Your task to perform on an android device: Open notification settings Image 0: 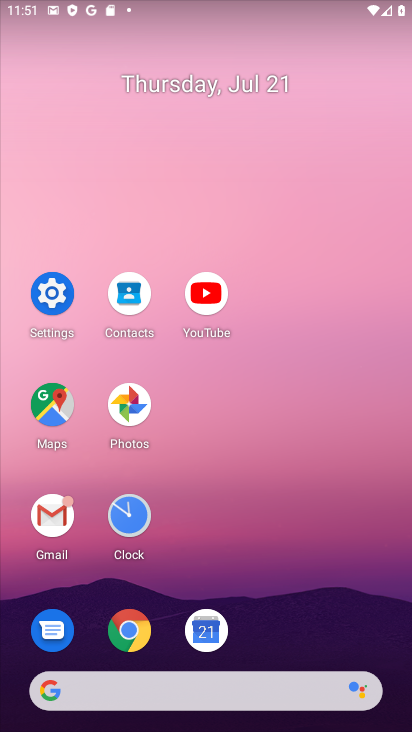
Step 0: click (48, 299)
Your task to perform on an android device: Open notification settings Image 1: 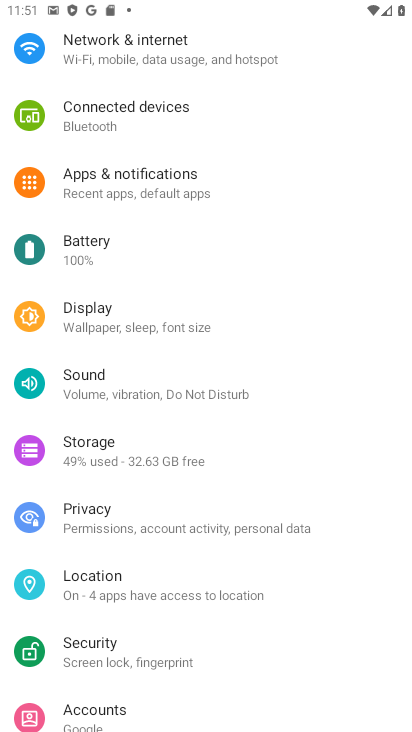
Step 1: click (116, 175)
Your task to perform on an android device: Open notification settings Image 2: 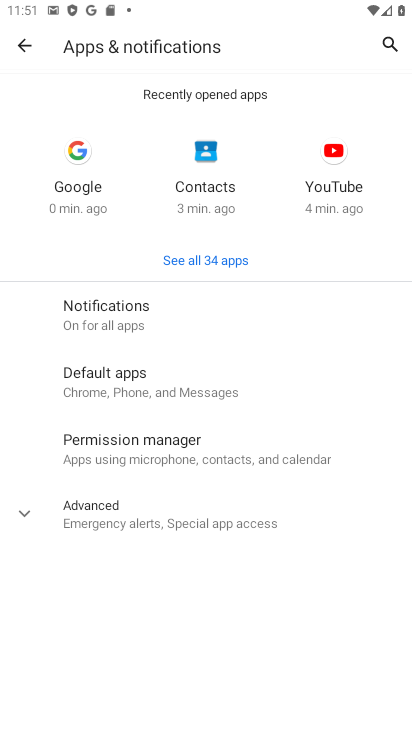
Step 2: click (110, 308)
Your task to perform on an android device: Open notification settings Image 3: 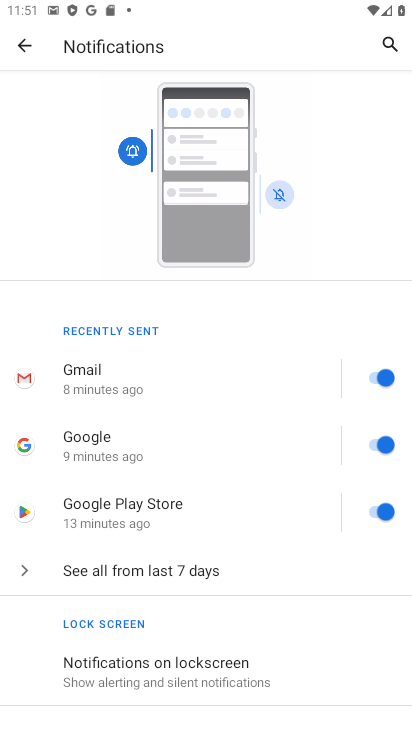
Step 3: task complete